Your task to perform on an android device: toggle javascript in the chrome app Image 0: 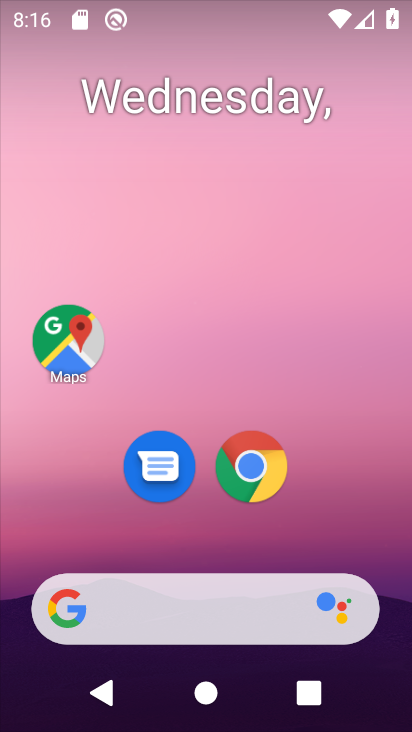
Step 0: click (258, 466)
Your task to perform on an android device: toggle javascript in the chrome app Image 1: 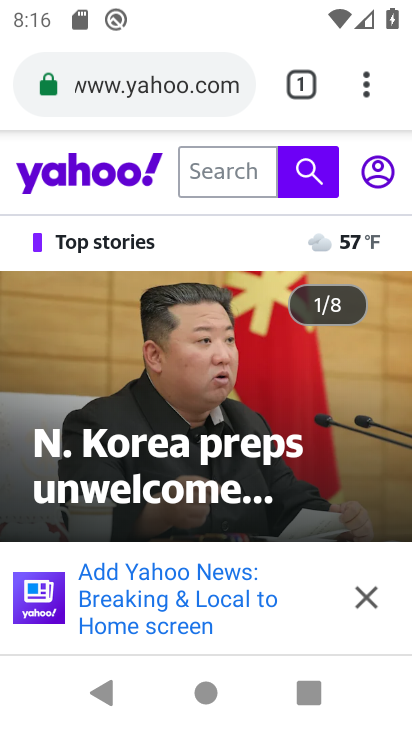
Step 1: click (366, 94)
Your task to perform on an android device: toggle javascript in the chrome app Image 2: 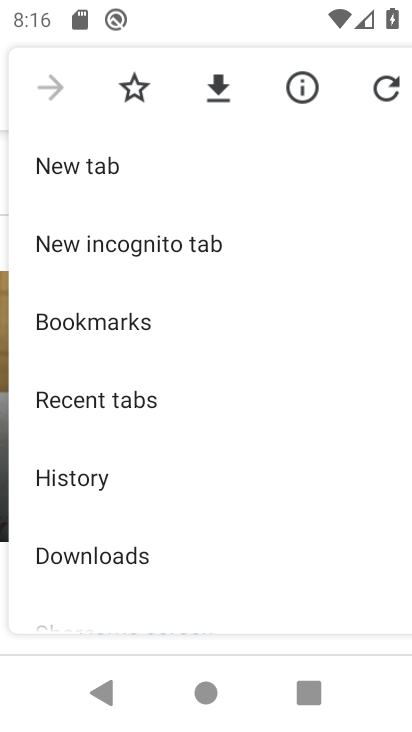
Step 2: drag from (202, 564) to (201, 91)
Your task to perform on an android device: toggle javascript in the chrome app Image 3: 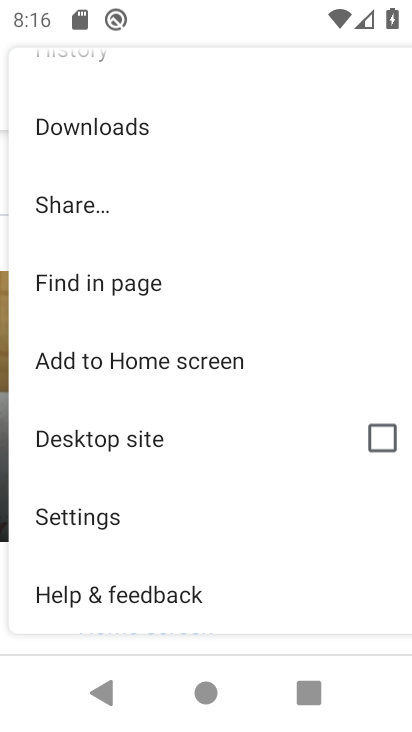
Step 3: click (85, 512)
Your task to perform on an android device: toggle javascript in the chrome app Image 4: 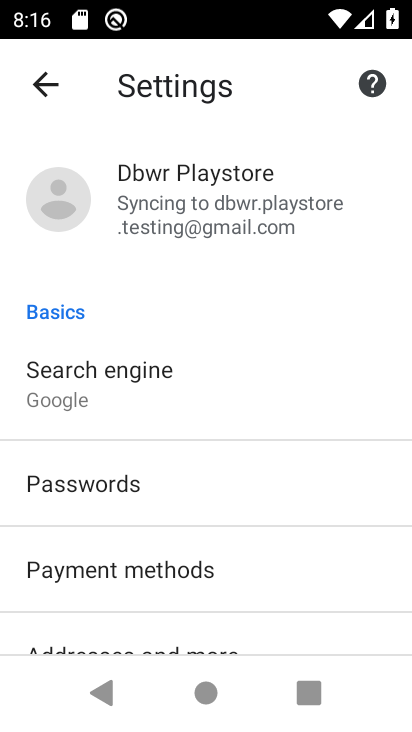
Step 4: drag from (151, 599) to (152, 248)
Your task to perform on an android device: toggle javascript in the chrome app Image 5: 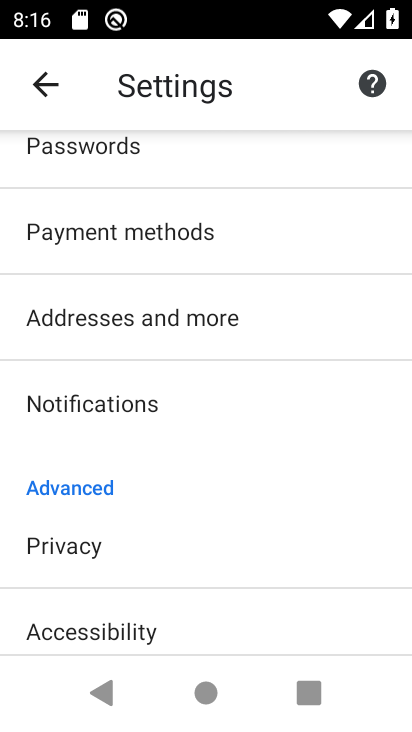
Step 5: drag from (152, 512) to (145, 222)
Your task to perform on an android device: toggle javascript in the chrome app Image 6: 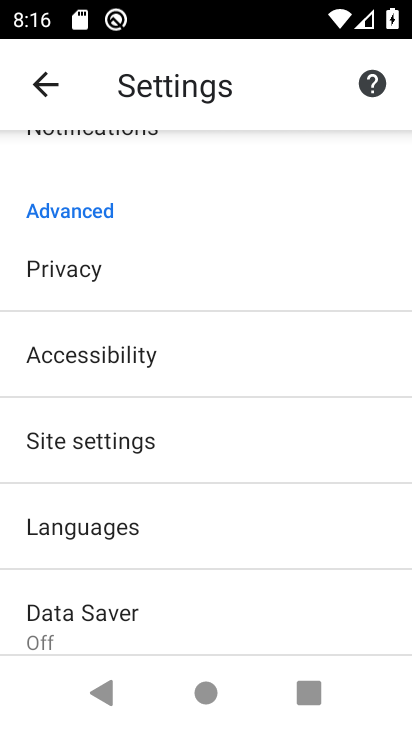
Step 6: click (100, 437)
Your task to perform on an android device: toggle javascript in the chrome app Image 7: 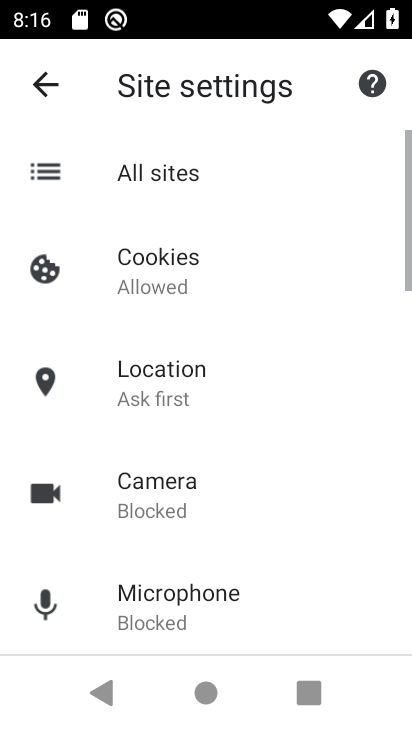
Step 7: drag from (187, 604) to (184, 214)
Your task to perform on an android device: toggle javascript in the chrome app Image 8: 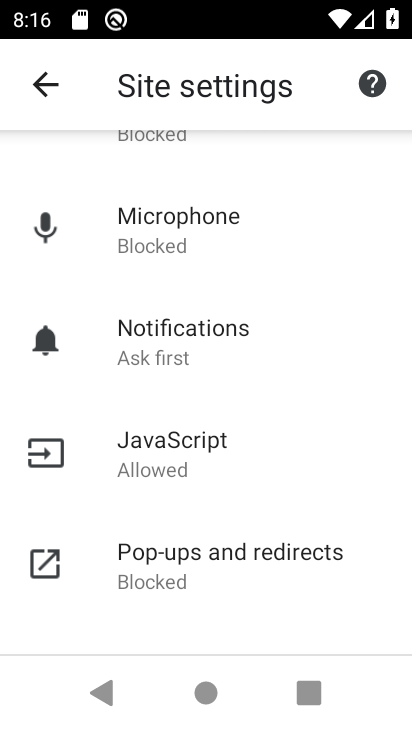
Step 8: click (171, 453)
Your task to perform on an android device: toggle javascript in the chrome app Image 9: 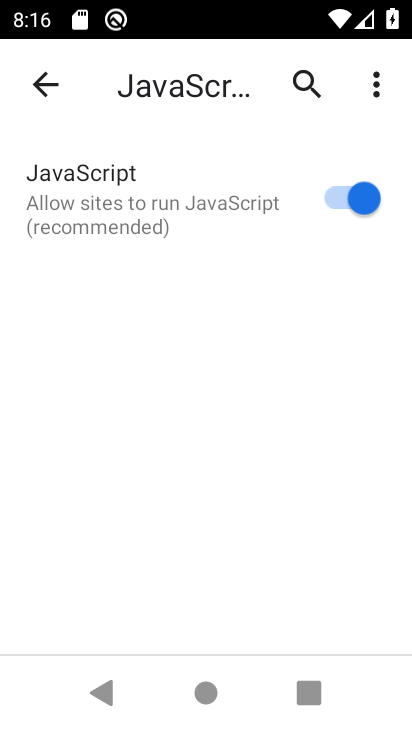
Step 9: click (340, 197)
Your task to perform on an android device: toggle javascript in the chrome app Image 10: 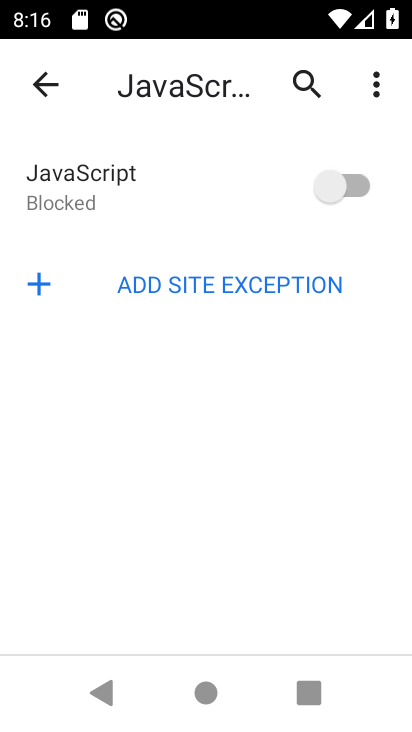
Step 10: task complete